Your task to perform on an android device: read, delete, or share a saved page in the chrome app Image 0: 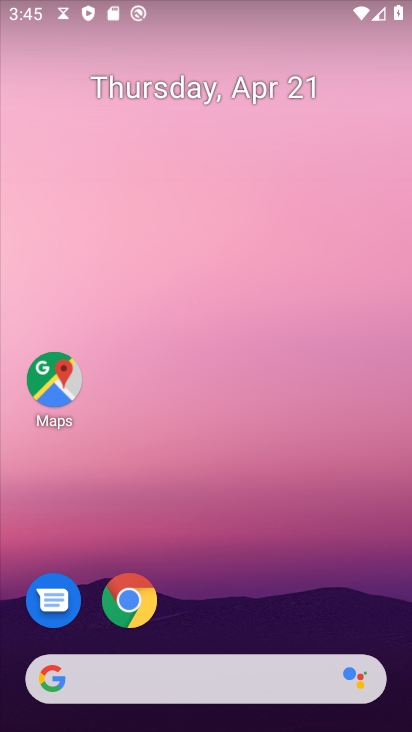
Step 0: click (131, 602)
Your task to perform on an android device: read, delete, or share a saved page in the chrome app Image 1: 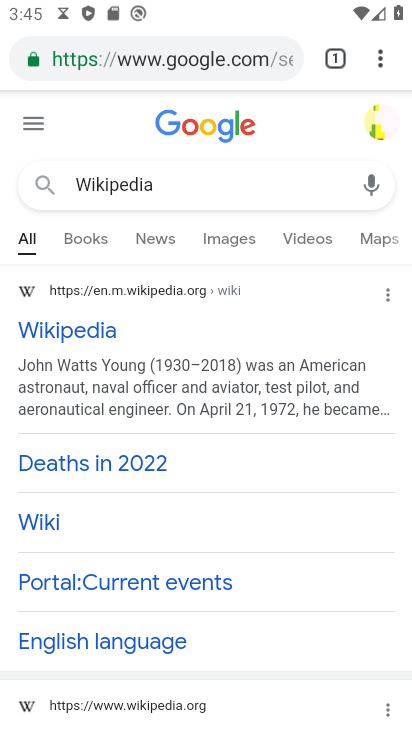
Step 1: click (385, 56)
Your task to perform on an android device: read, delete, or share a saved page in the chrome app Image 2: 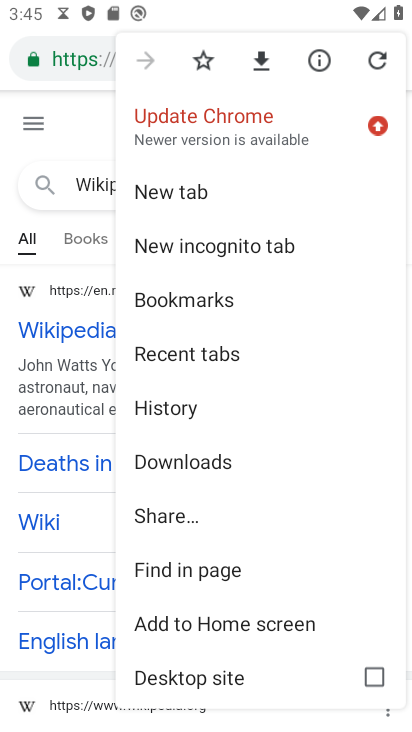
Step 2: click (223, 462)
Your task to perform on an android device: read, delete, or share a saved page in the chrome app Image 3: 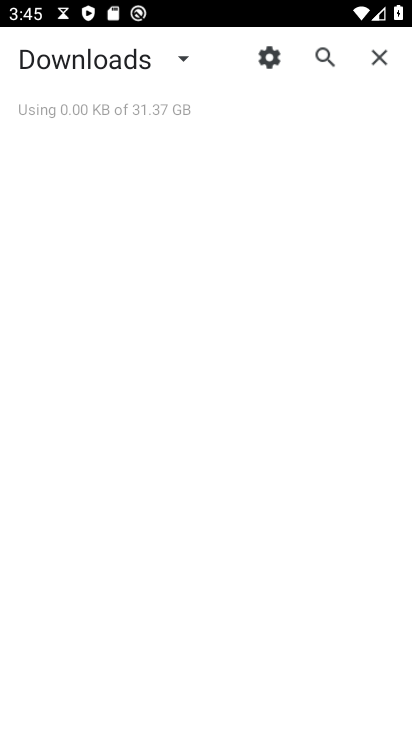
Step 3: click (181, 63)
Your task to perform on an android device: read, delete, or share a saved page in the chrome app Image 4: 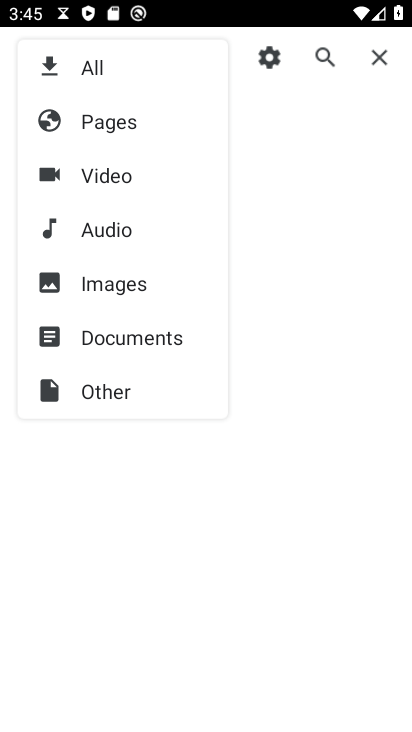
Step 4: click (128, 119)
Your task to perform on an android device: read, delete, or share a saved page in the chrome app Image 5: 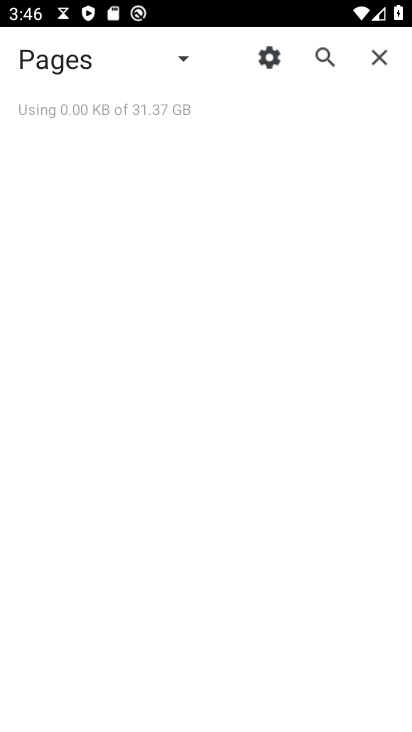
Step 5: task complete